Your task to perform on an android device: Open CNN.com Image 0: 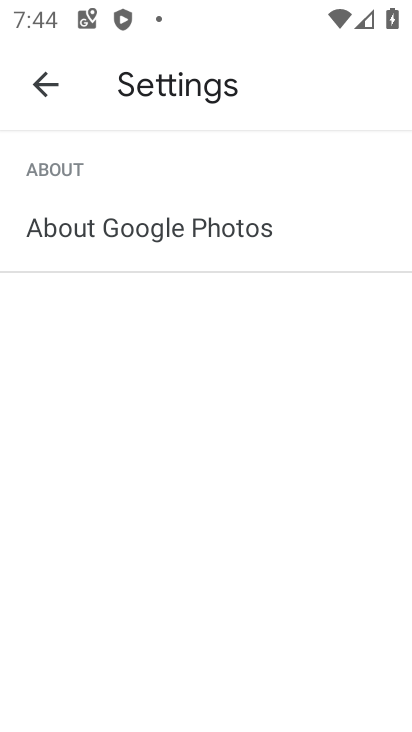
Step 0: press home button
Your task to perform on an android device: Open CNN.com Image 1: 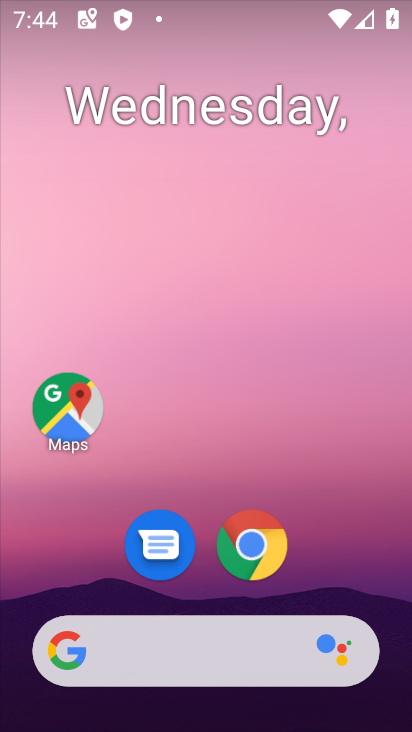
Step 1: click (252, 546)
Your task to perform on an android device: Open CNN.com Image 2: 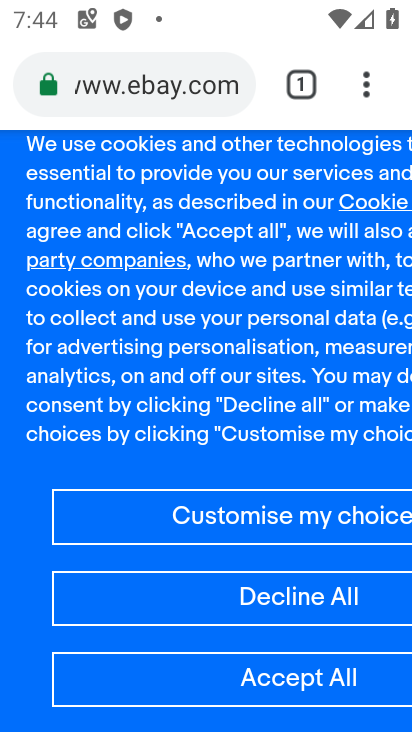
Step 2: click (189, 82)
Your task to perform on an android device: Open CNN.com Image 3: 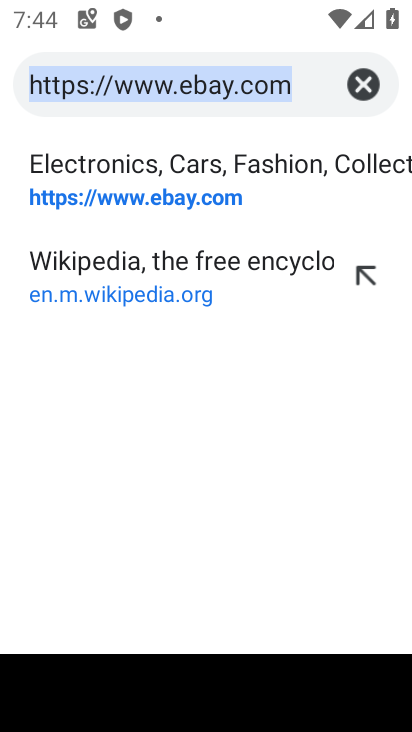
Step 3: click (355, 91)
Your task to perform on an android device: Open CNN.com Image 4: 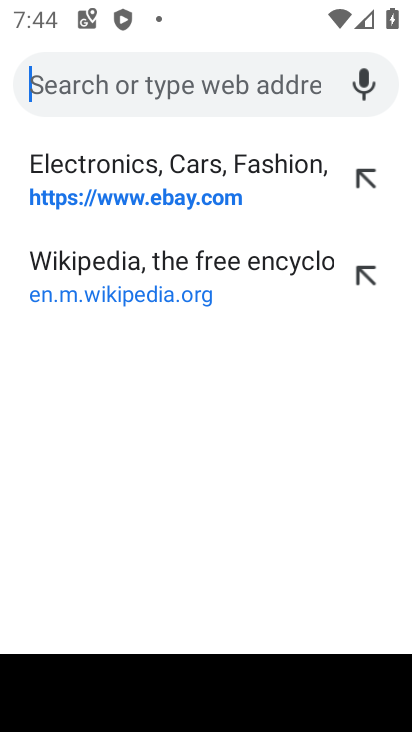
Step 4: click (355, 91)
Your task to perform on an android device: Open CNN.com Image 5: 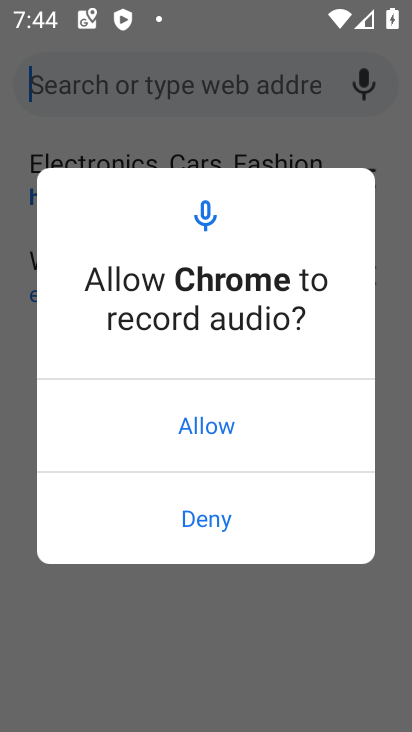
Step 5: click (270, 412)
Your task to perform on an android device: Open CNN.com Image 6: 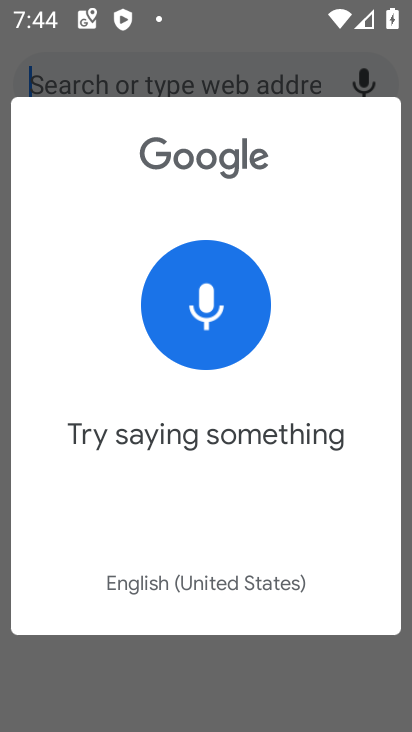
Step 6: type "CNN.com"
Your task to perform on an android device: Open CNN.com Image 7: 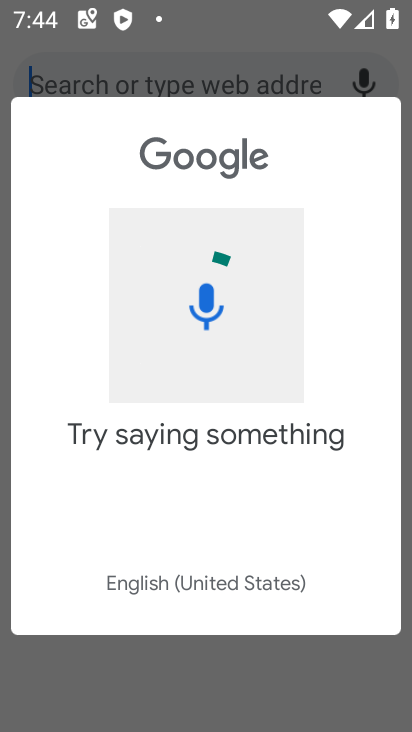
Step 7: type ""
Your task to perform on an android device: Open CNN.com Image 8: 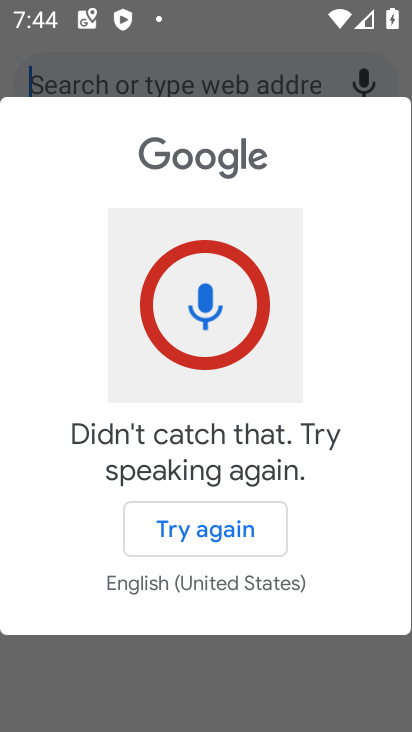
Step 8: task complete